Your task to perform on an android device: open app "Facebook Lite" Image 0: 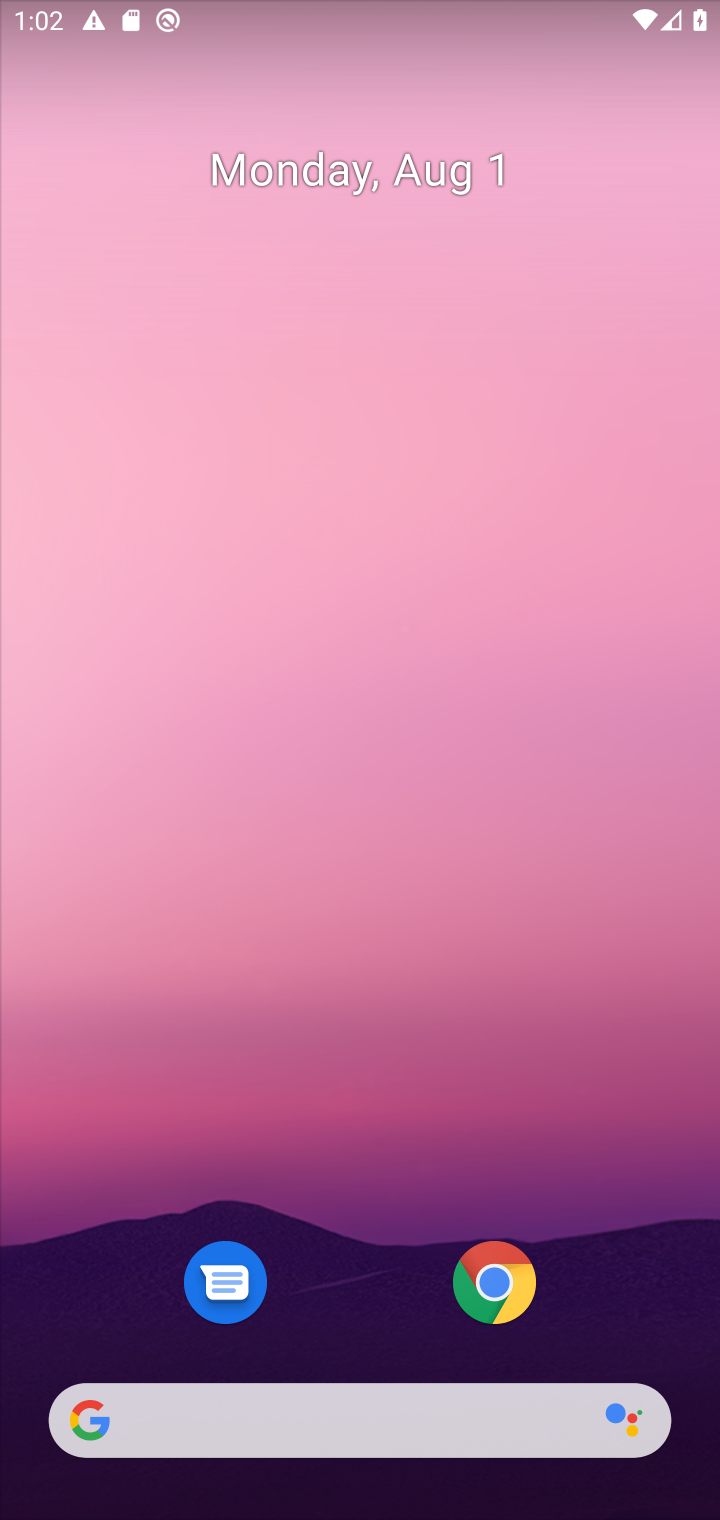
Step 0: drag from (373, 1365) to (201, 301)
Your task to perform on an android device: open app "Facebook Lite" Image 1: 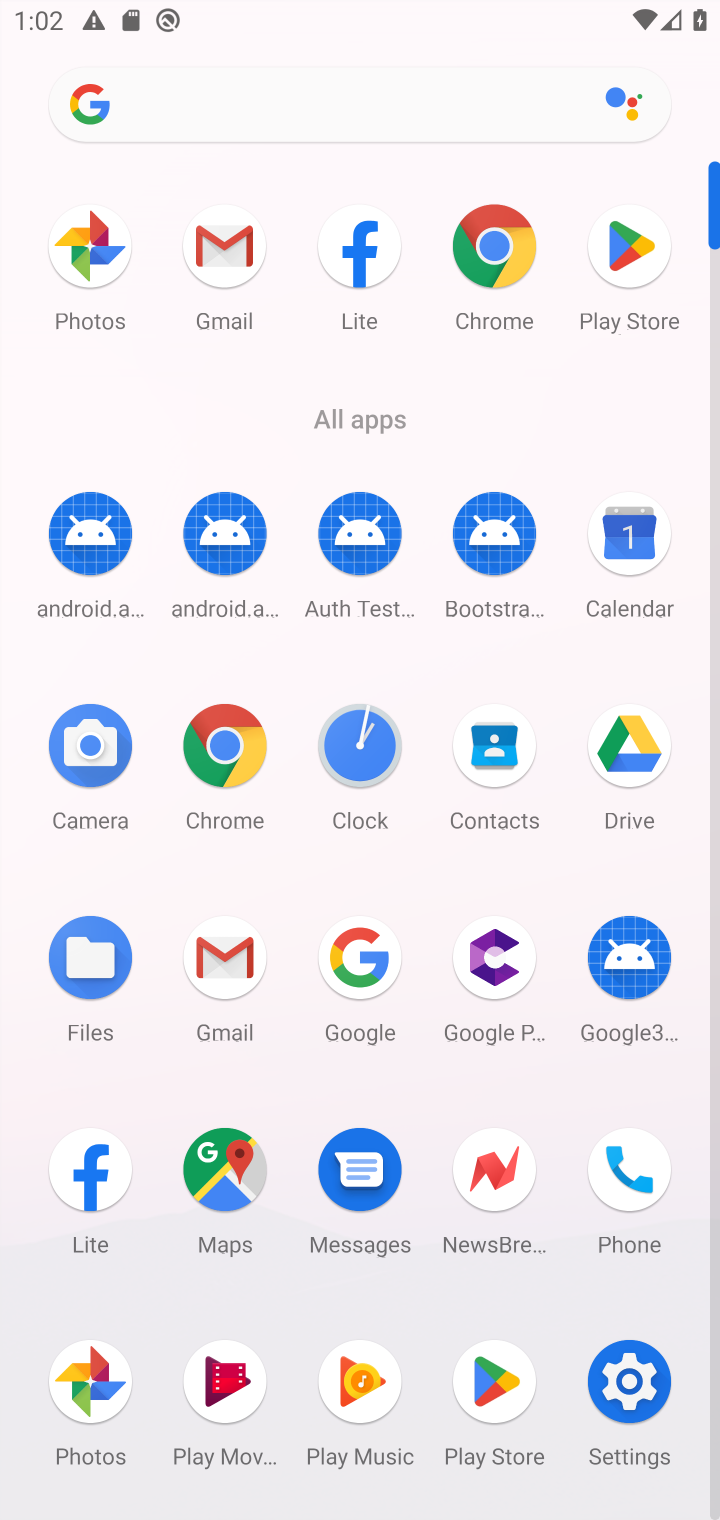
Step 1: click (83, 1197)
Your task to perform on an android device: open app "Facebook Lite" Image 2: 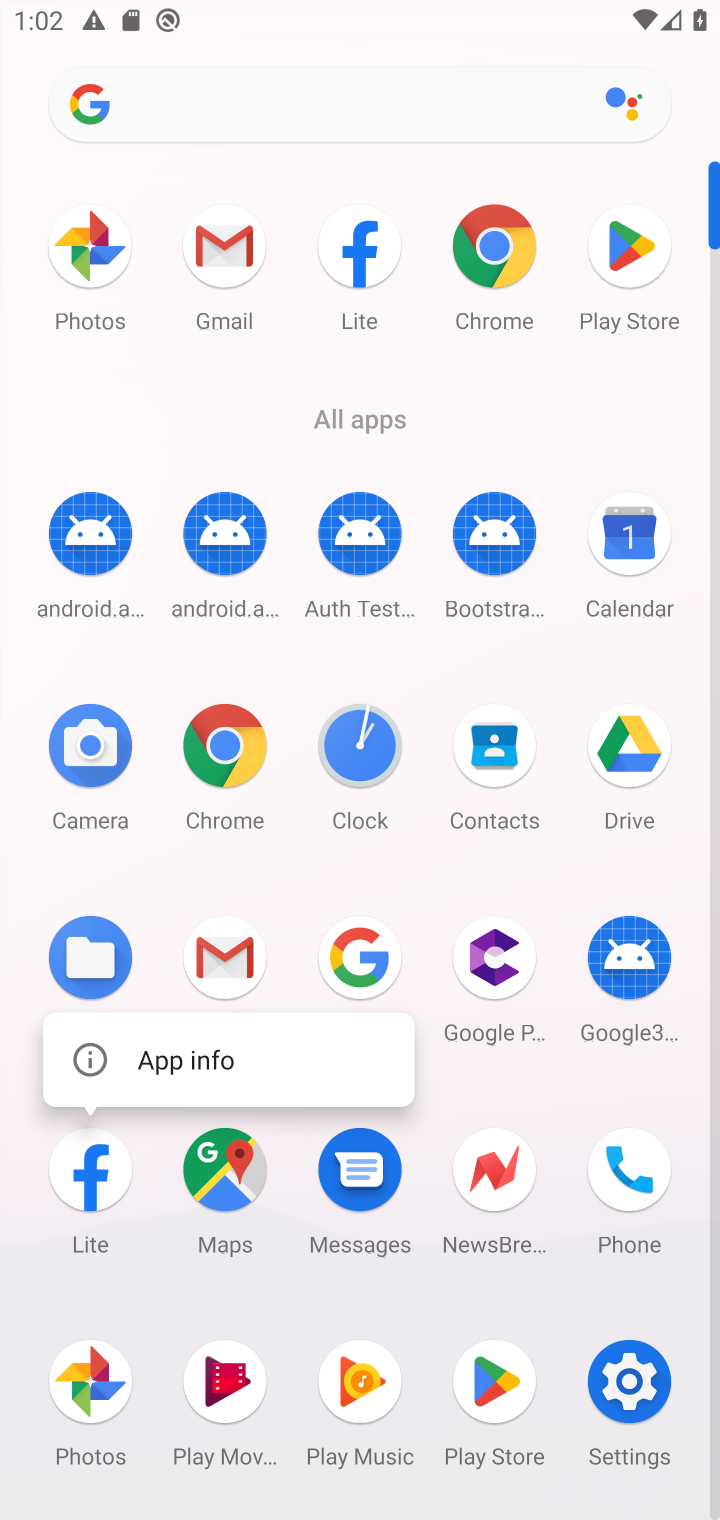
Step 2: click (65, 1195)
Your task to perform on an android device: open app "Facebook Lite" Image 3: 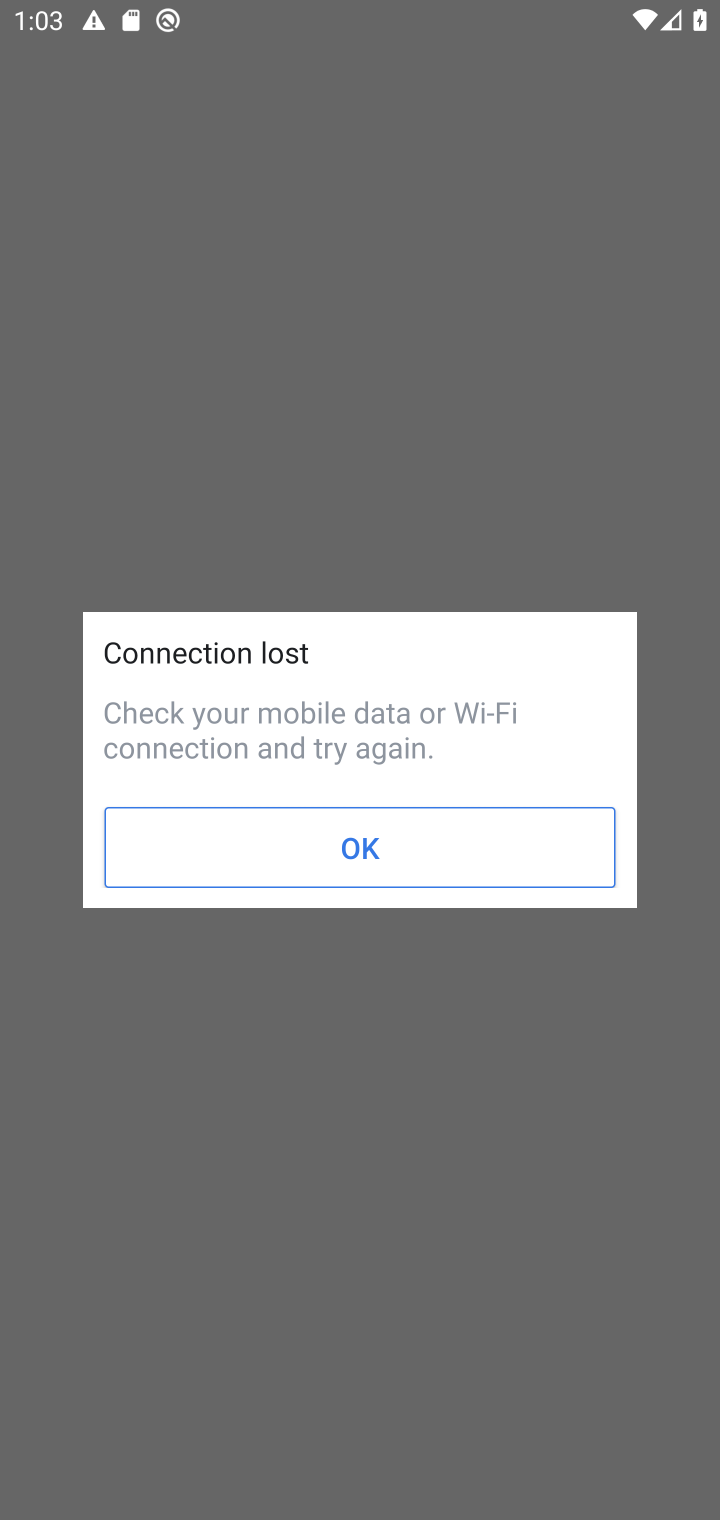
Step 3: click (435, 854)
Your task to perform on an android device: open app "Facebook Lite" Image 4: 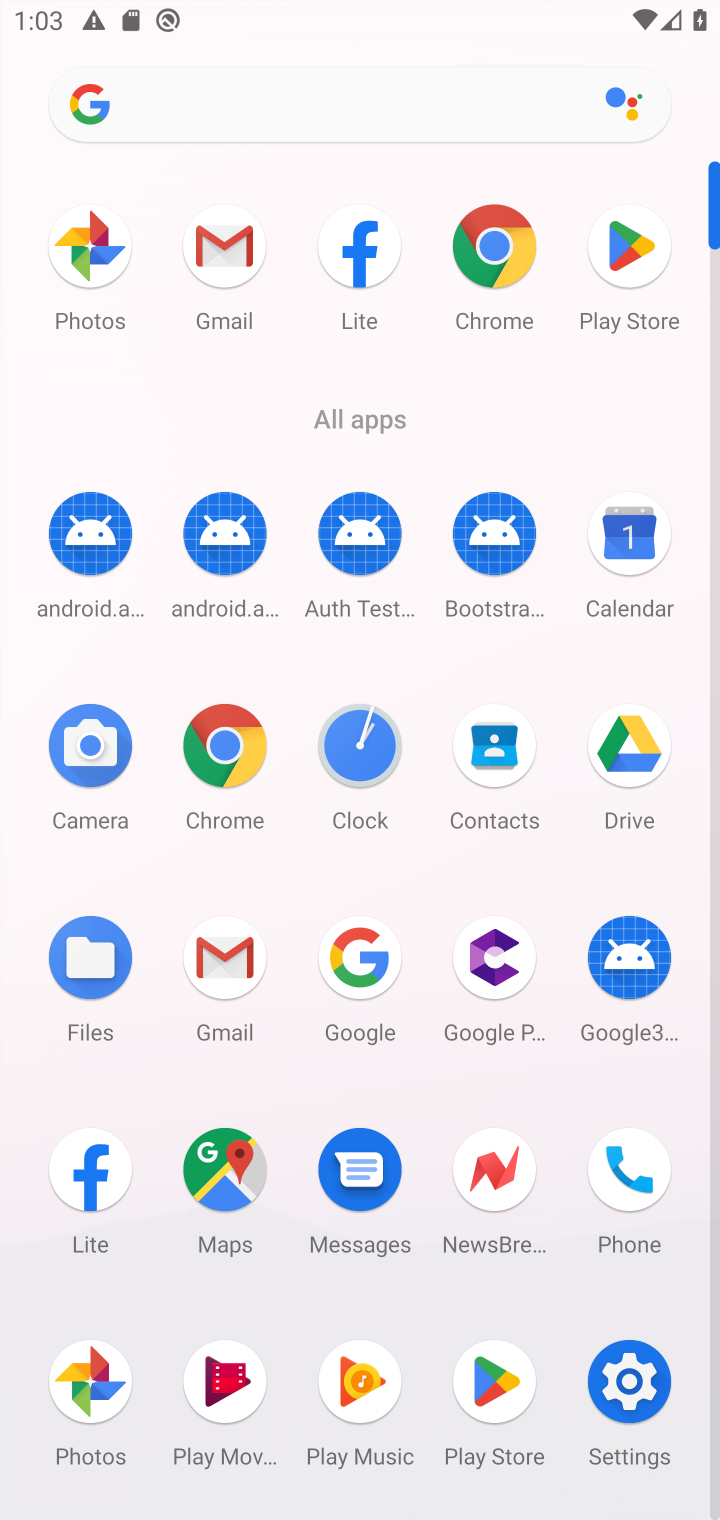
Step 4: task complete